Your task to perform on an android device: What is the news today? Image 0: 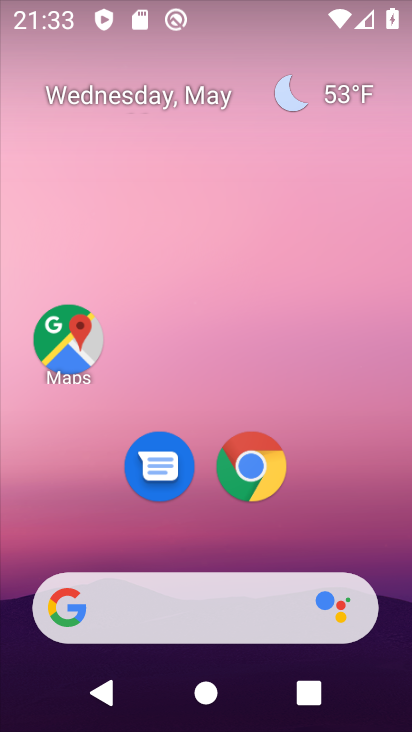
Step 0: drag from (204, 531) to (294, 86)
Your task to perform on an android device: What is the news today? Image 1: 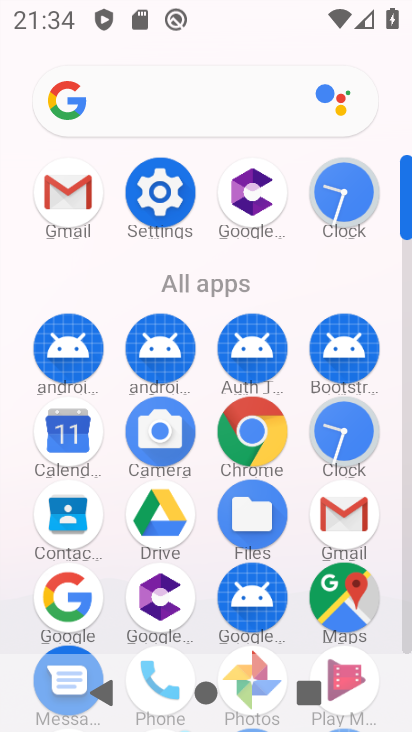
Step 1: click (106, 111)
Your task to perform on an android device: What is the news today? Image 2: 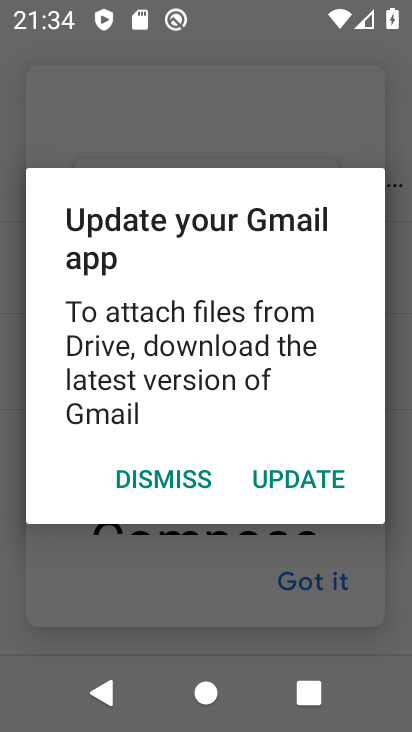
Step 2: click (165, 504)
Your task to perform on an android device: What is the news today? Image 3: 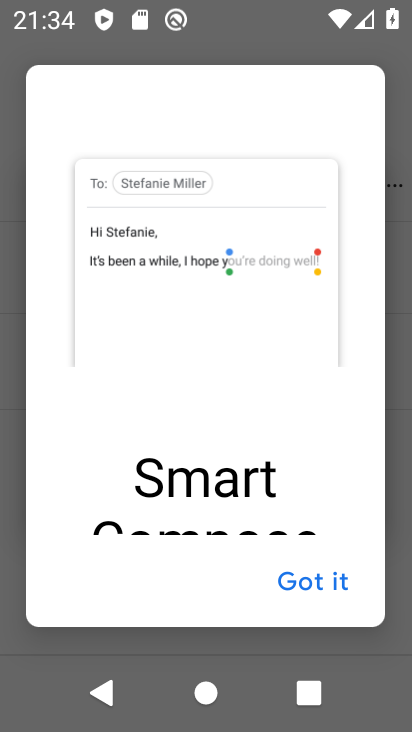
Step 3: click (312, 561)
Your task to perform on an android device: What is the news today? Image 4: 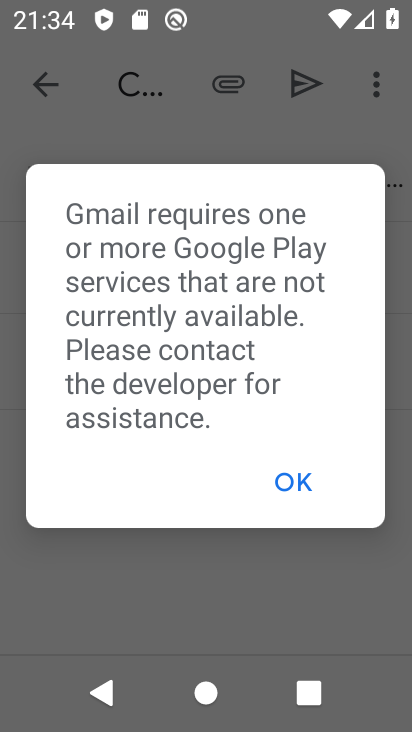
Step 4: click (275, 475)
Your task to perform on an android device: What is the news today? Image 5: 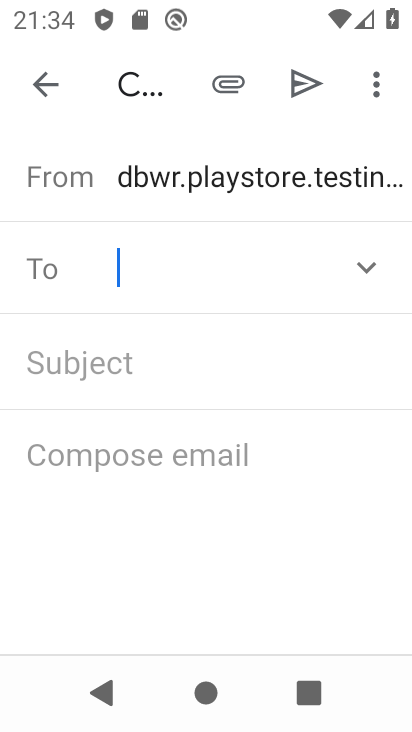
Step 5: press home button
Your task to perform on an android device: What is the news today? Image 6: 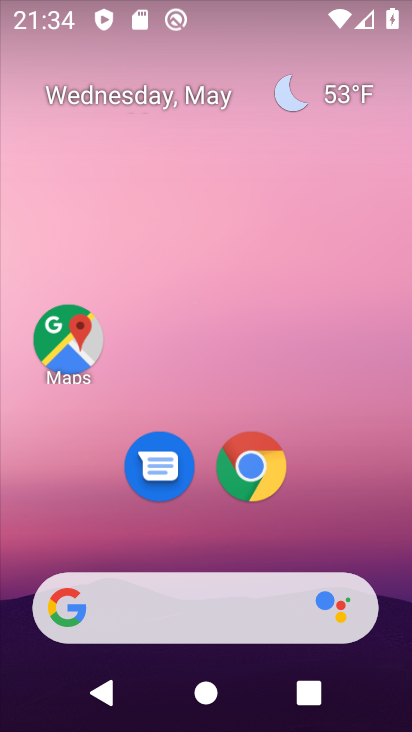
Step 6: drag from (209, 501) to (239, 189)
Your task to perform on an android device: What is the news today? Image 7: 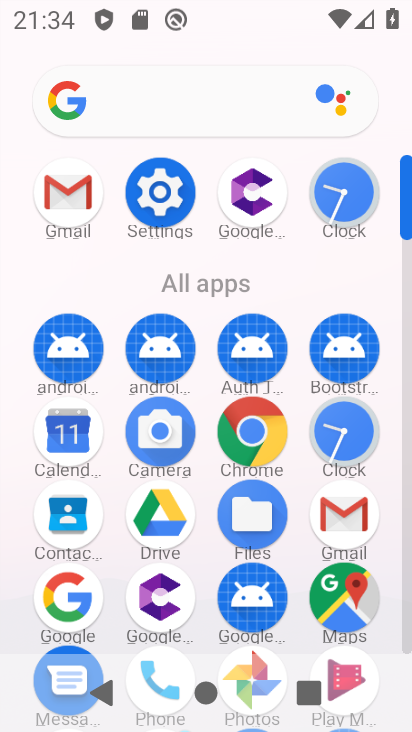
Step 7: click (223, 104)
Your task to perform on an android device: What is the news today? Image 8: 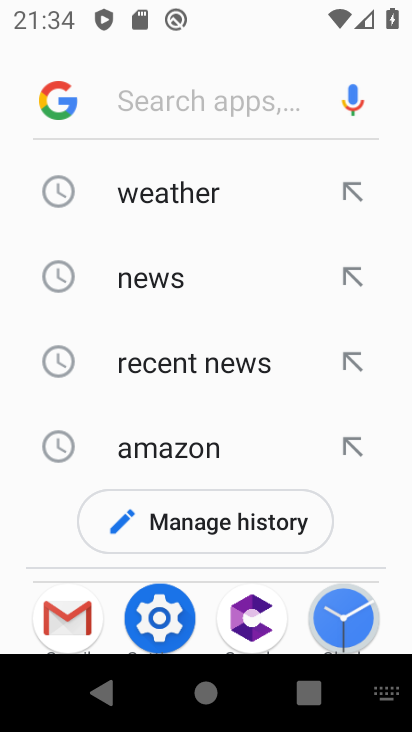
Step 8: type "news"
Your task to perform on an android device: What is the news today? Image 9: 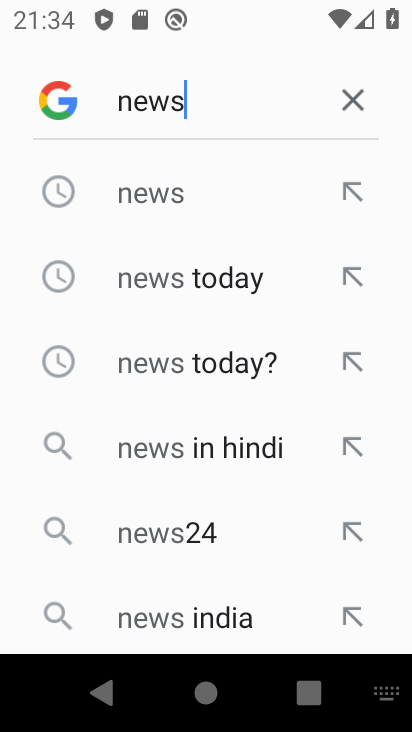
Step 9: click (354, 105)
Your task to perform on an android device: What is the news today? Image 10: 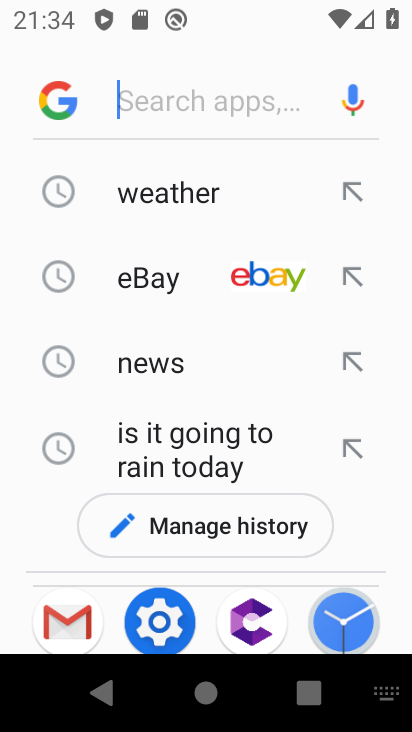
Step 10: type "news"
Your task to perform on an android device: What is the news today? Image 11: 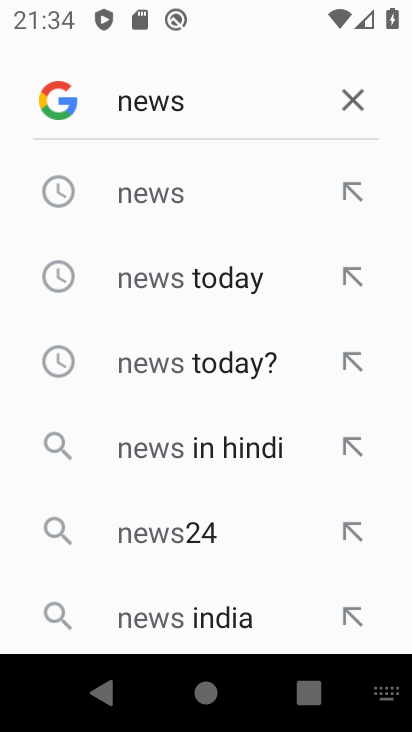
Step 11: click (201, 282)
Your task to perform on an android device: What is the news today? Image 12: 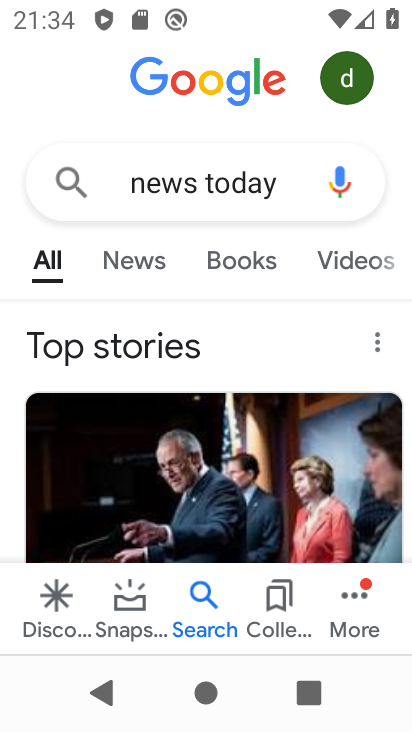
Step 12: drag from (206, 549) to (229, 305)
Your task to perform on an android device: What is the news today? Image 13: 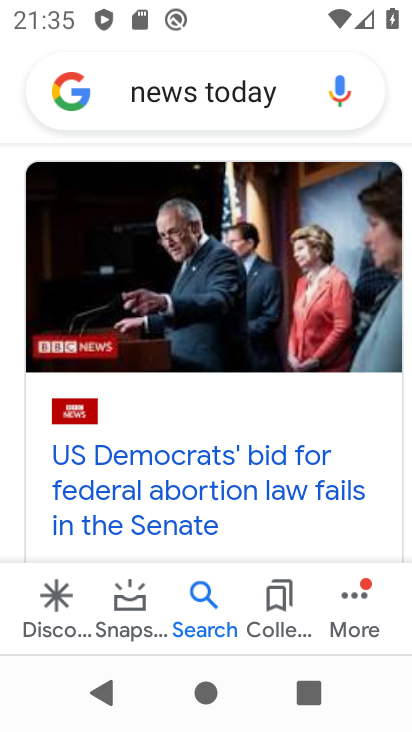
Step 13: drag from (254, 547) to (256, 274)
Your task to perform on an android device: What is the news today? Image 14: 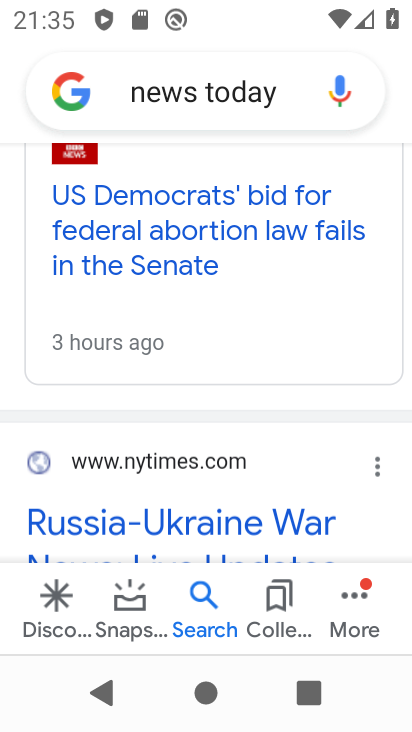
Step 14: drag from (257, 484) to (262, 311)
Your task to perform on an android device: What is the news today? Image 15: 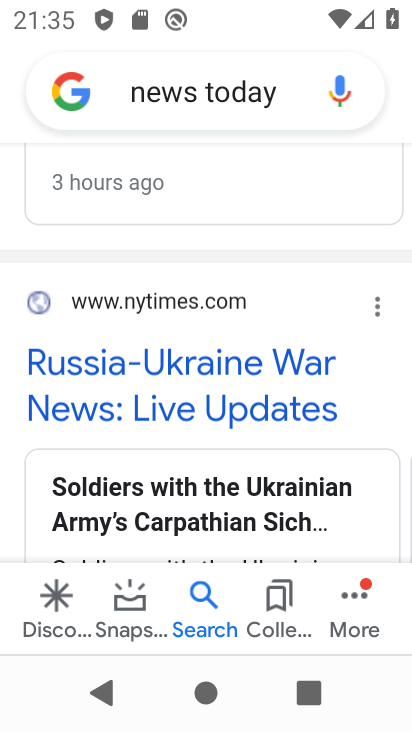
Step 15: drag from (277, 350) to (272, 660)
Your task to perform on an android device: What is the news today? Image 16: 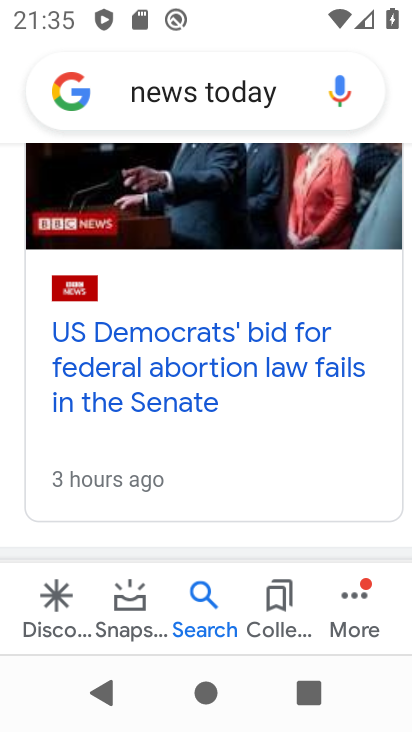
Step 16: drag from (322, 272) to (306, 723)
Your task to perform on an android device: What is the news today? Image 17: 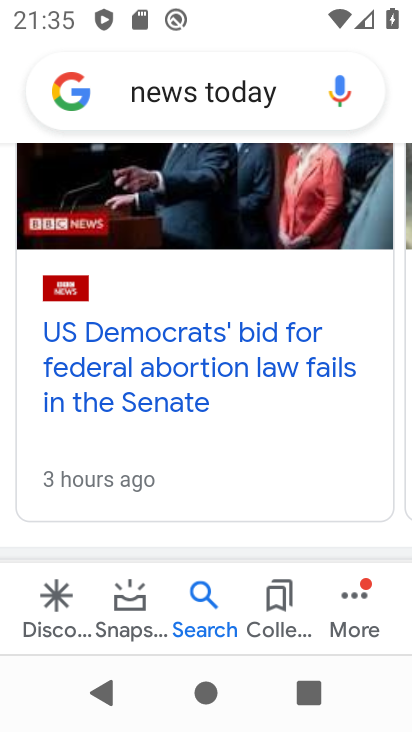
Step 17: drag from (249, 332) to (174, 334)
Your task to perform on an android device: What is the news today? Image 18: 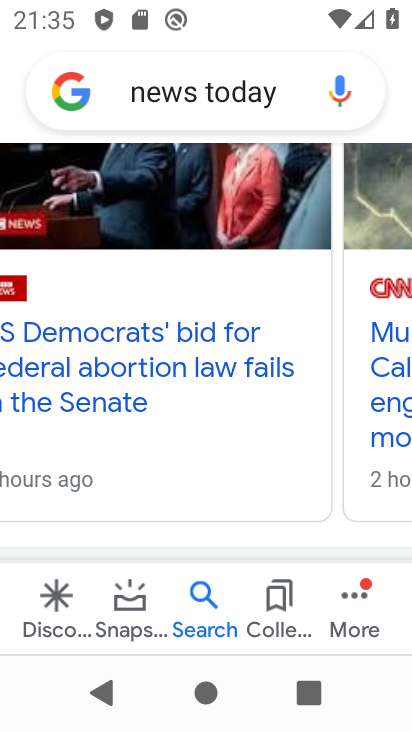
Step 18: click (25, 398)
Your task to perform on an android device: What is the news today? Image 19: 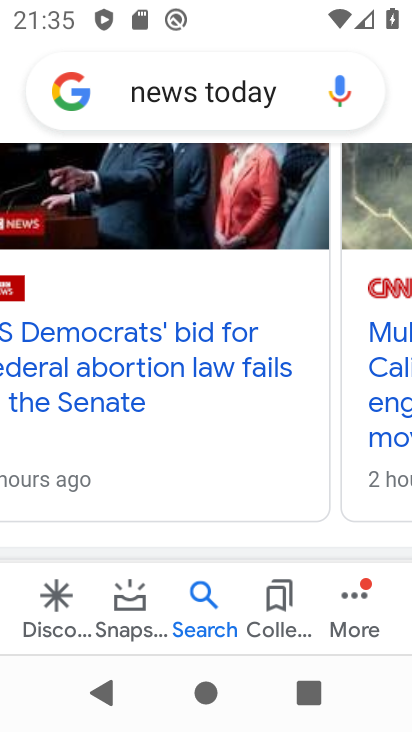
Step 19: task complete